Your task to perform on an android device: Open calendar and show me the second week of next month Image 0: 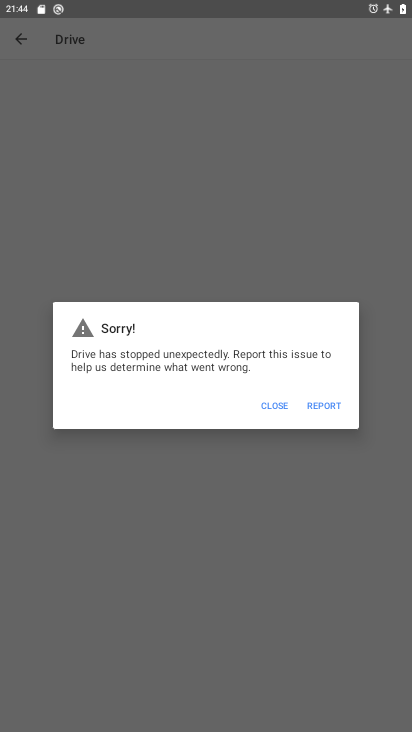
Step 0: press home button
Your task to perform on an android device: Open calendar and show me the second week of next month Image 1: 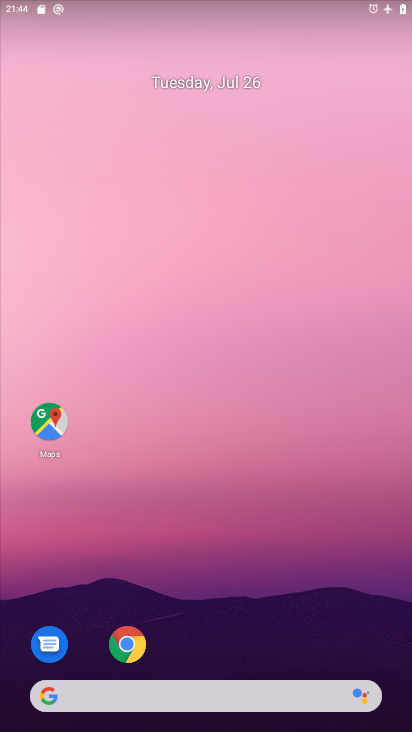
Step 1: drag from (176, 618) to (193, 356)
Your task to perform on an android device: Open calendar and show me the second week of next month Image 2: 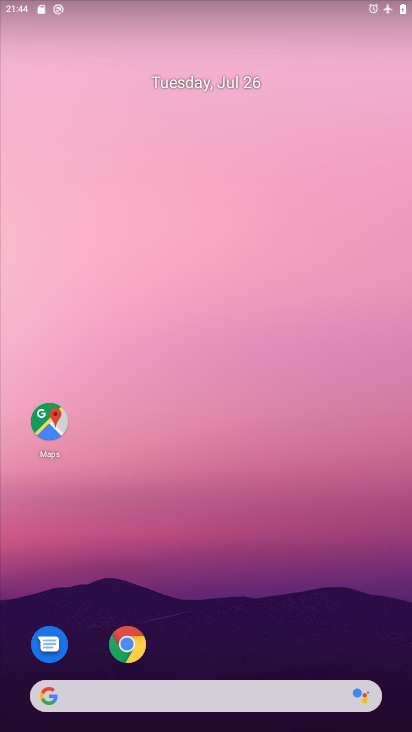
Step 2: drag from (229, 698) to (255, 55)
Your task to perform on an android device: Open calendar and show me the second week of next month Image 3: 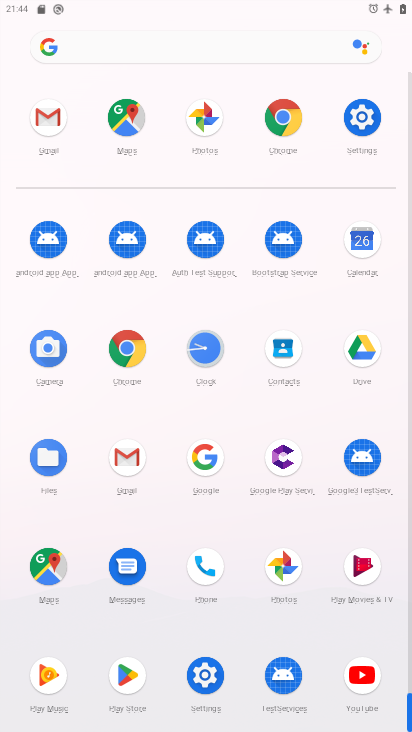
Step 3: click (352, 245)
Your task to perform on an android device: Open calendar and show me the second week of next month Image 4: 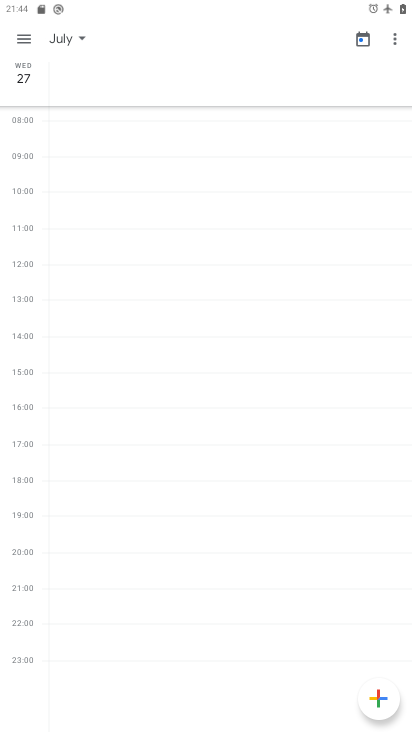
Step 4: click (27, 38)
Your task to perform on an android device: Open calendar and show me the second week of next month Image 5: 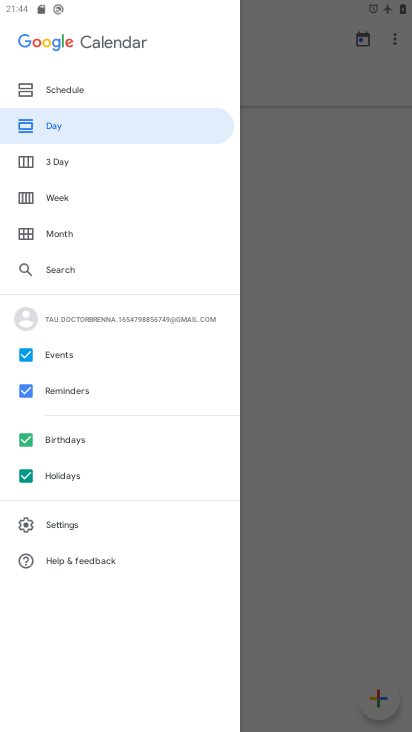
Step 5: click (67, 238)
Your task to perform on an android device: Open calendar and show me the second week of next month Image 6: 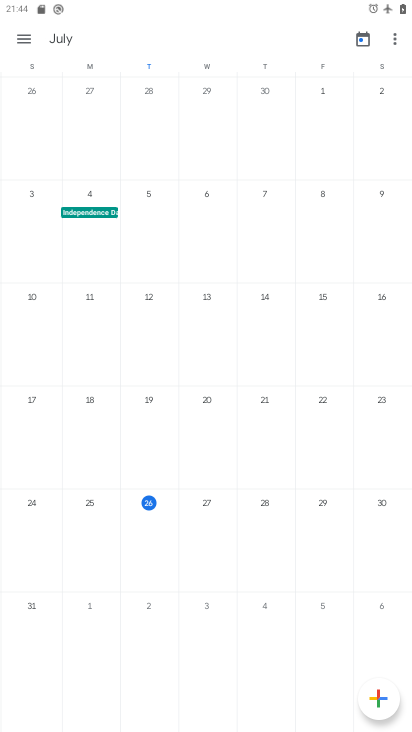
Step 6: drag from (353, 315) to (37, 240)
Your task to perform on an android device: Open calendar and show me the second week of next month Image 7: 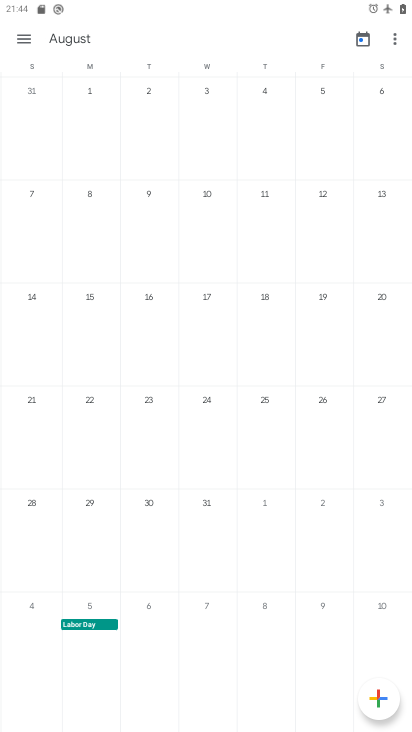
Step 7: click (15, 34)
Your task to perform on an android device: Open calendar and show me the second week of next month Image 8: 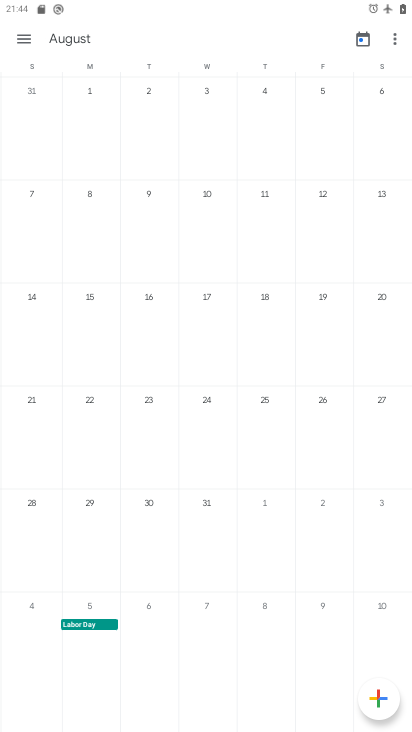
Step 8: click (27, 31)
Your task to perform on an android device: Open calendar and show me the second week of next month Image 9: 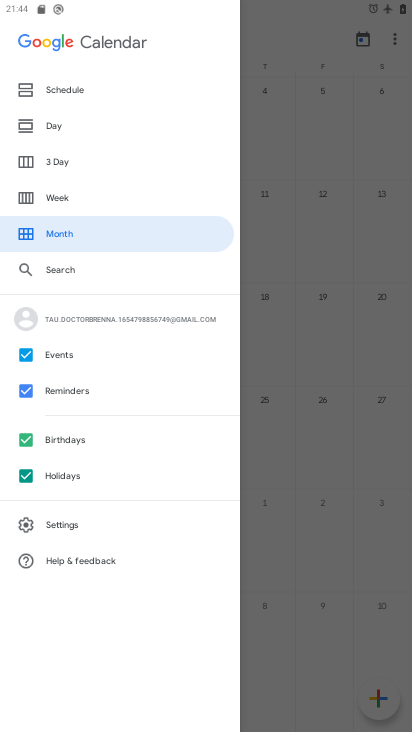
Step 9: click (74, 187)
Your task to perform on an android device: Open calendar and show me the second week of next month Image 10: 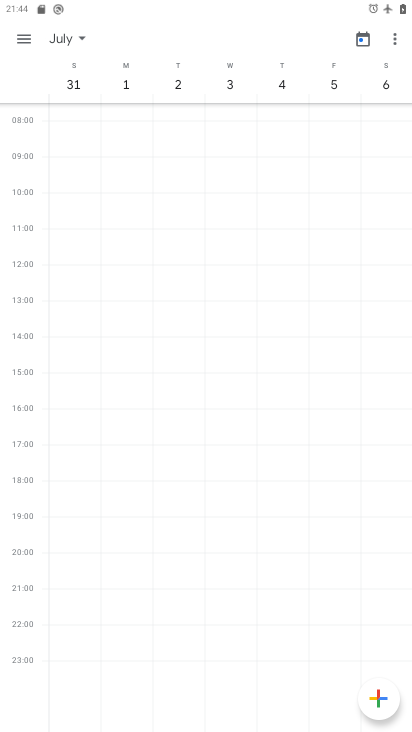
Step 10: task complete